Your task to perform on an android device: delete the emails in spam in the gmail app Image 0: 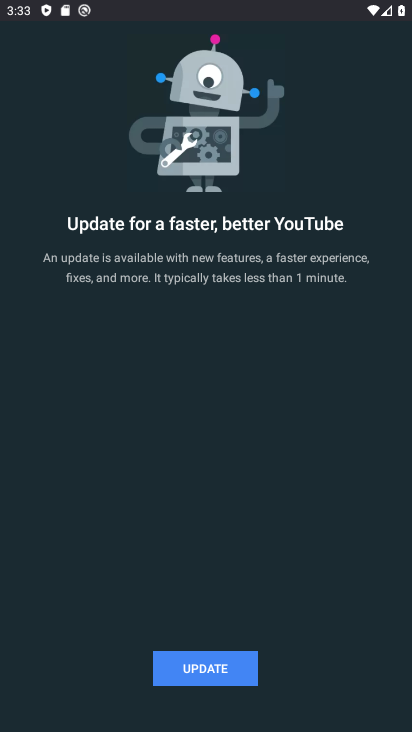
Step 0: drag from (247, 566) to (226, 217)
Your task to perform on an android device: delete the emails in spam in the gmail app Image 1: 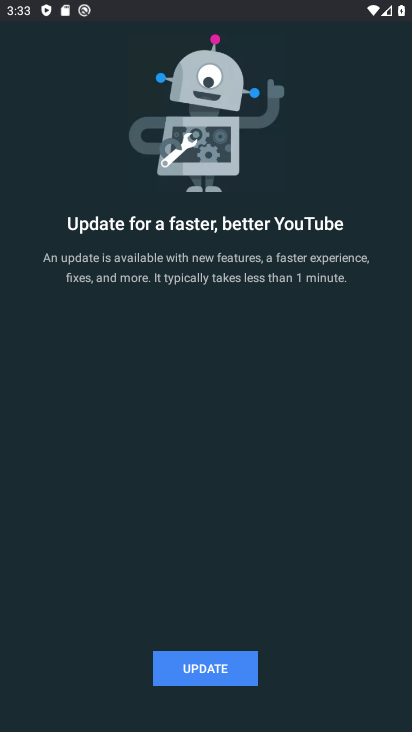
Step 1: press home button
Your task to perform on an android device: delete the emails in spam in the gmail app Image 2: 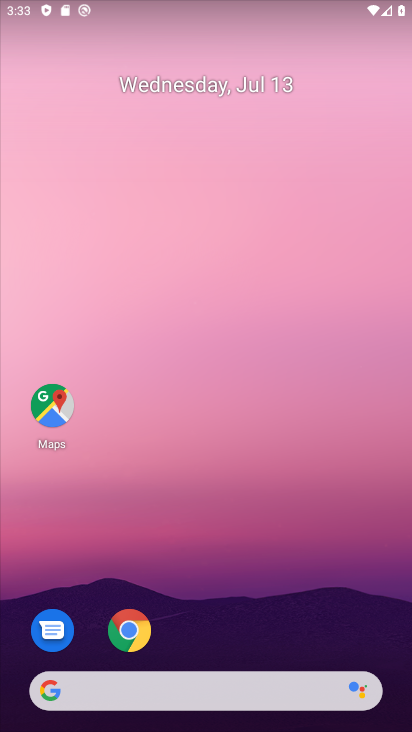
Step 2: drag from (231, 610) to (209, 193)
Your task to perform on an android device: delete the emails in spam in the gmail app Image 3: 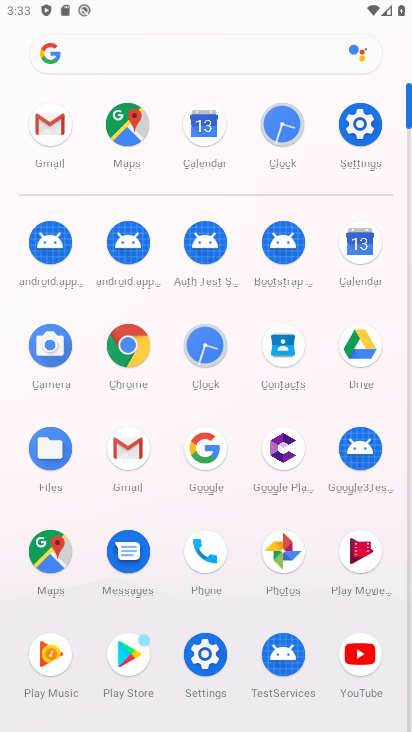
Step 3: click (46, 121)
Your task to perform on an android device: delete the emails in spam in the gmail app Image 4: 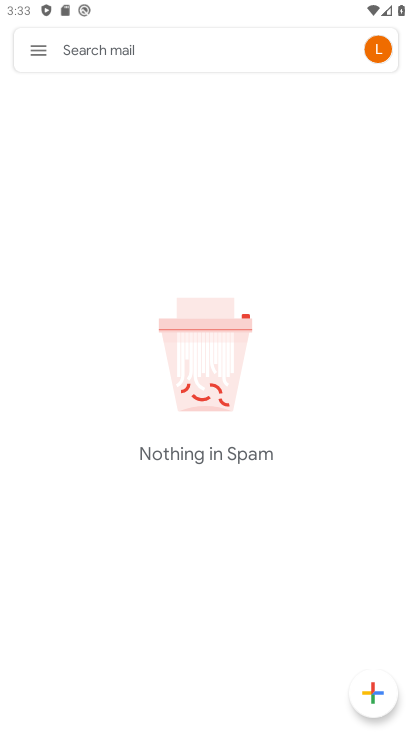
Step 4: click (32, 48)
Your task to perform on an android device: delete the emails in spam in the gmail app Image 5: 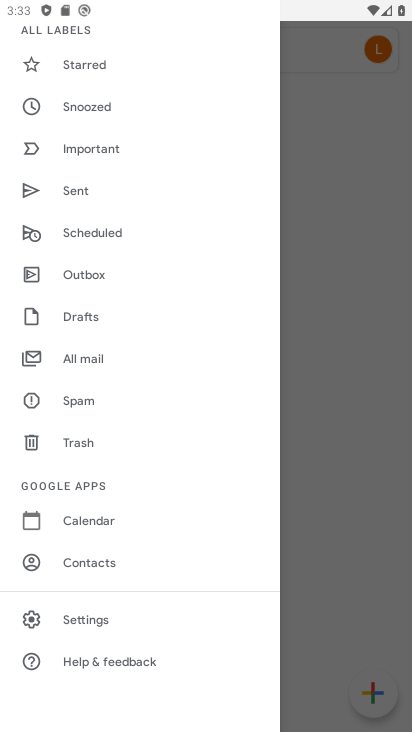
Step 5: click (62, 397)
Your task to perform on an android device: delete the emails in spam in the gmail app Image 6: 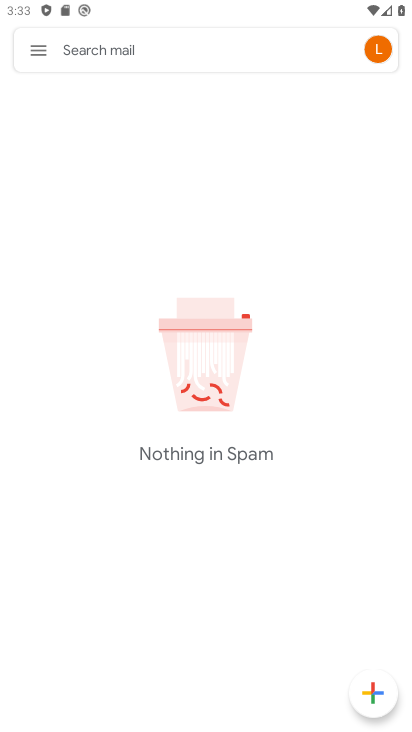
Step 6: task complete